Your task to perform on an android device: Go to Wikipedia Image 0: 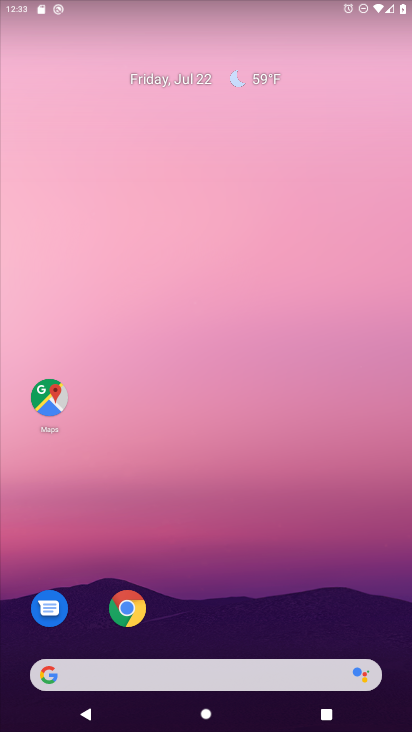
Step 0: drag from (368, 659) to (159, 50)
Your task to perform on an android device: Go to Wikipedia Image 1: 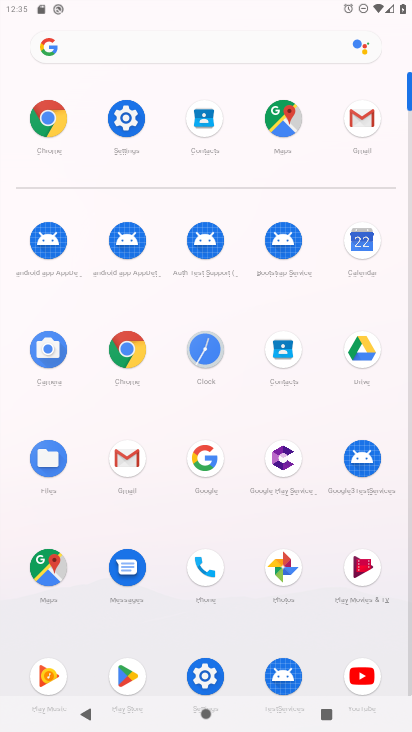
Step 1: click (205, 476)
Your task to perform on an android device: Go to Wikipedia Image 2: 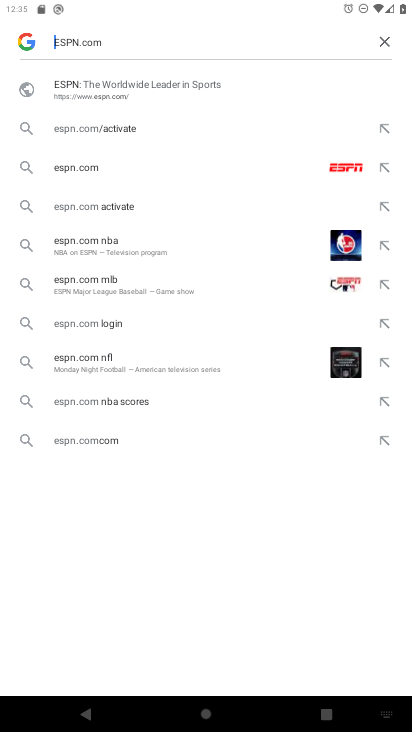
Step 2: click (387, 42)
Your task to perform on an android device: Go to Wikipedia Image 3: 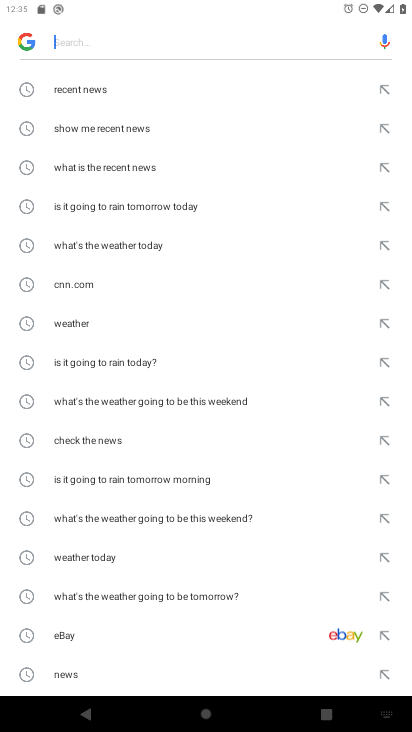
Step 3: drag from (112, 563) to (118, 190)
Your task to perform on an android device: Go to Wikipedia Image 4: 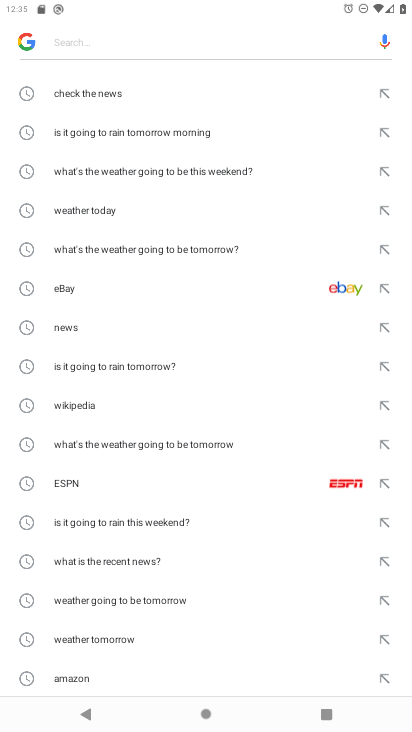
Step 4: type "Wikipedia"
Your task to perform on an android device: Go to Wikipedia Image 5: 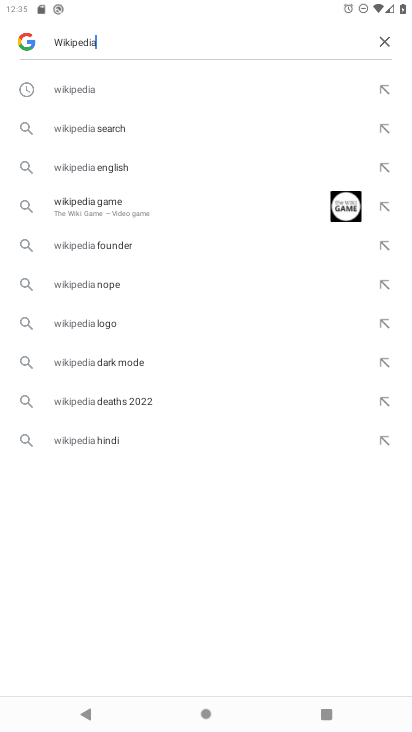
Step 5: click (92, 84)
Your task to perform on an android device: Go to Wikipedia Image 6: 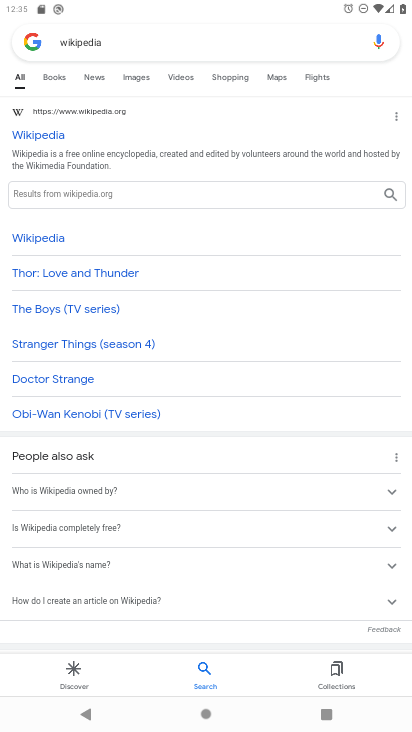
Step 6: task complete